Your task to perform on an android device: check the backup settings in the google photos Image 0: 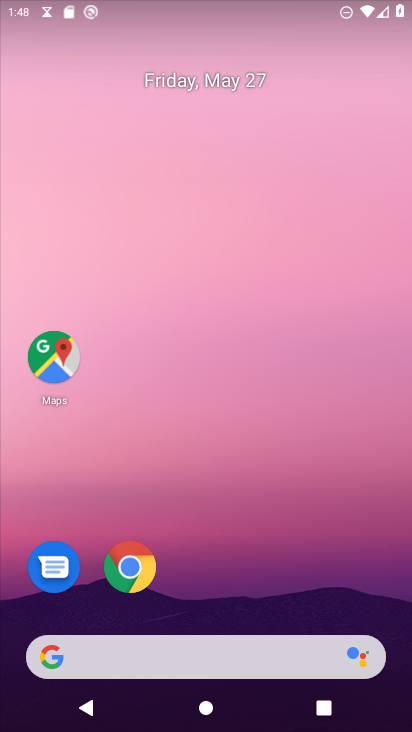
Step 0: drag from (243, 610) to (170, 176)
Your task to perform on an android device: check the backup settings in the google photos Image 1: 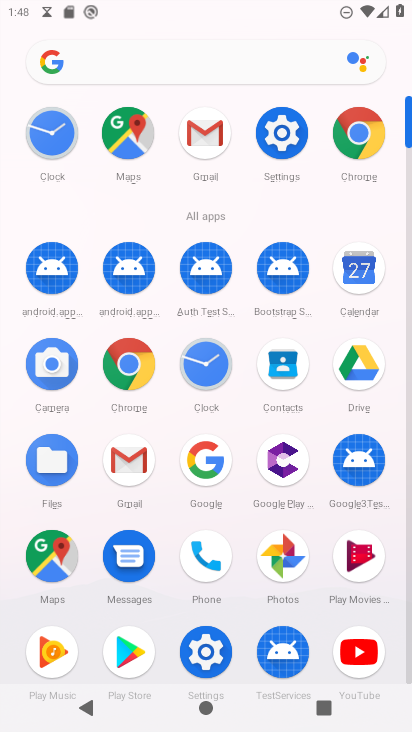
Step 1: click (279, 560)
Your task to perform on an android device: check the backup settings in the google photos Image 2: 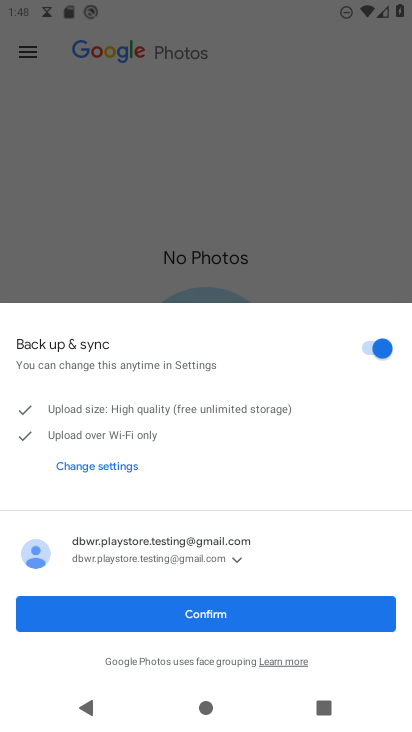
Step 2: click (274, 611)
Your task to perform on an android device: check the backup settings in the google photos Image 3: 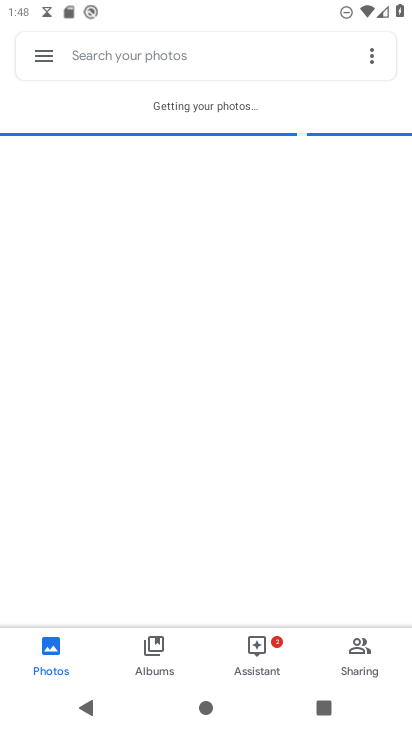
Step 3: click (34, 65)
Your task to perform on an android device: check the backup settings in the google photos Image 4: 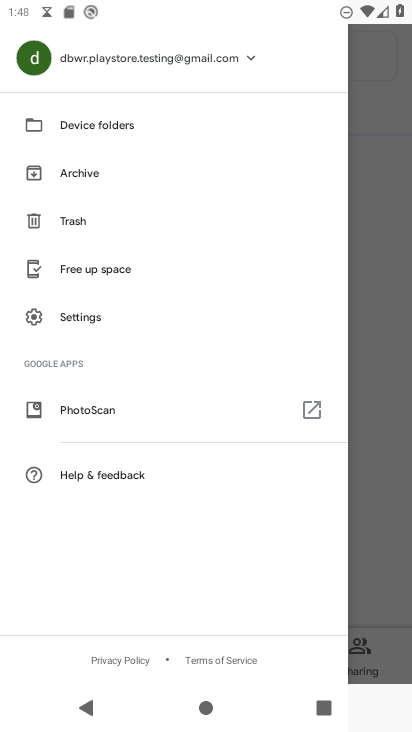
Step 4: click (93, 321)
Your task to perform on an android device: check the backup settings in the google photos Image 5: 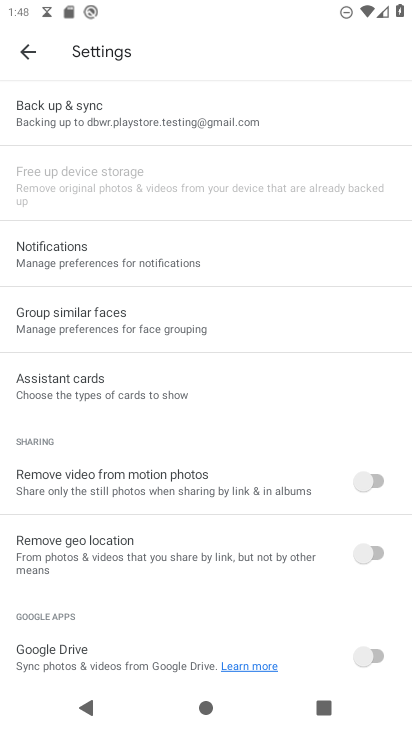
Step 5: click (135, 107)
Your task to perform on an android device: check the backup settings in the google photos Image 6: 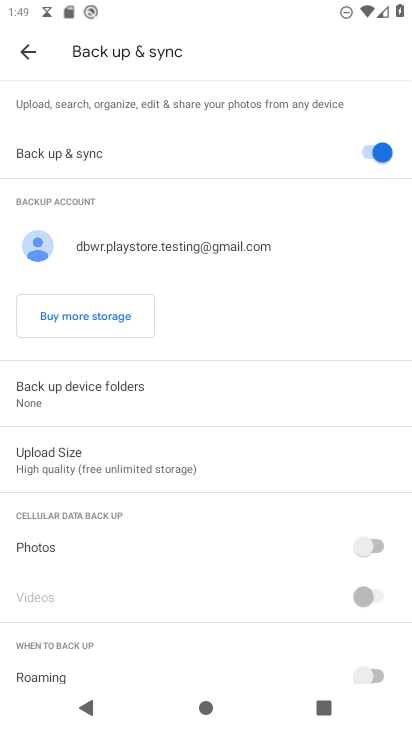
Step 6: task complete